Your task to perform on an android device: Open the phone app and click the voicemail tab. Image 0: 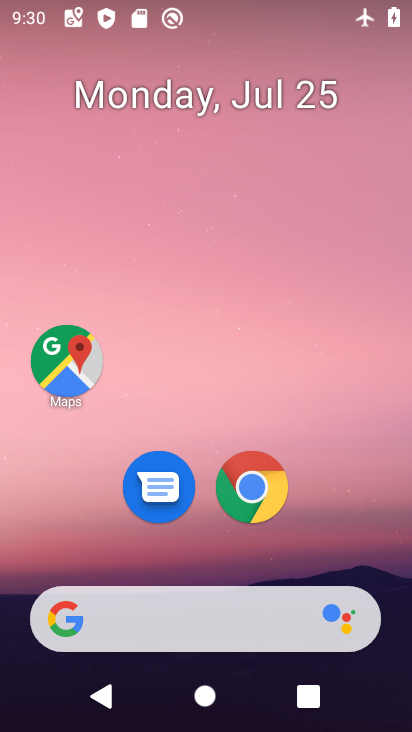
Step 0: drag from (165, 525) to (248, 4)
Your task to perform on an android device: Open the phone app and click the voicemail tab. Image 1: 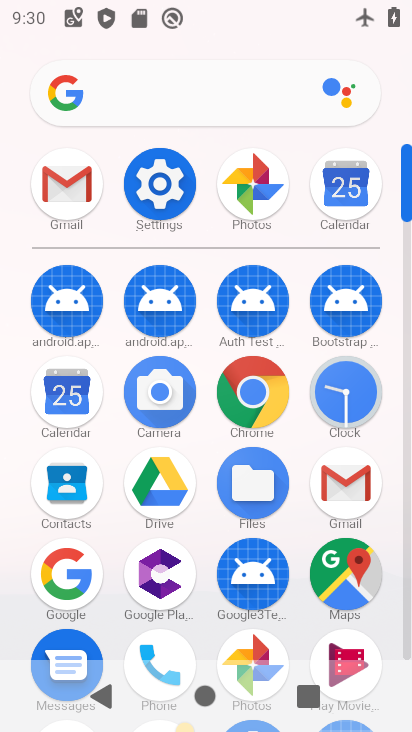
Step 1: click (149, 647)
Your task to perform on an android device: Open the phone app and click the voicemail tab. Image 2: 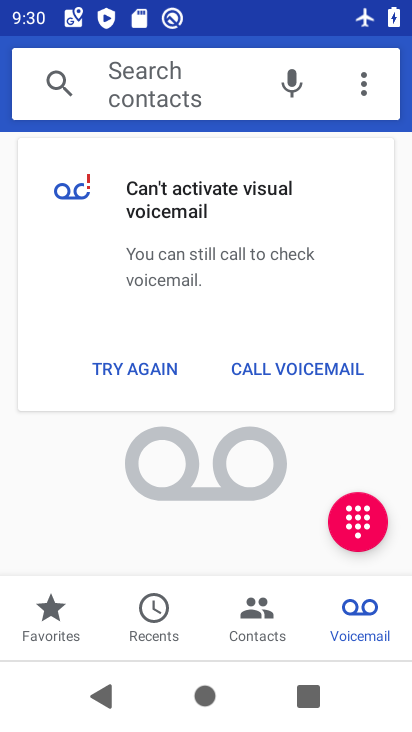
Step 2: task complete